Your task to perform on an android device: Open notification settings Image 0: 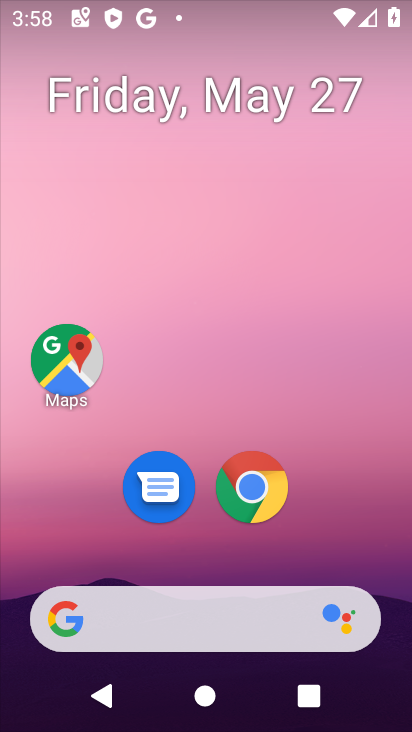
Step 0: drag from (322, 405) to (294, 33)
Your task to perform on an android device: Open notification settings Image 1: 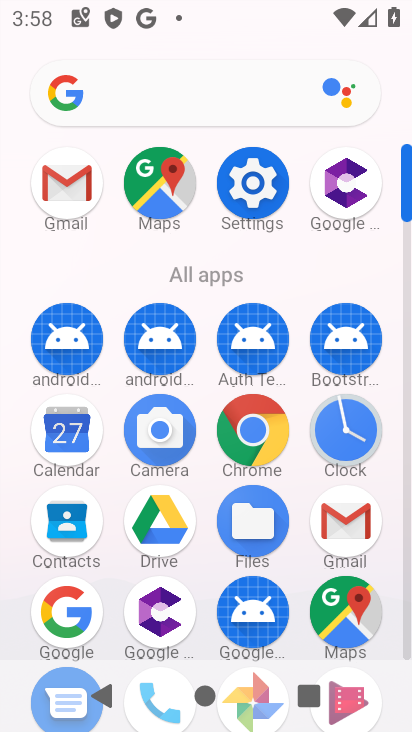
Step 1: click (245, 183)
Your task to perform on an android device: Open notification settings Image 2: 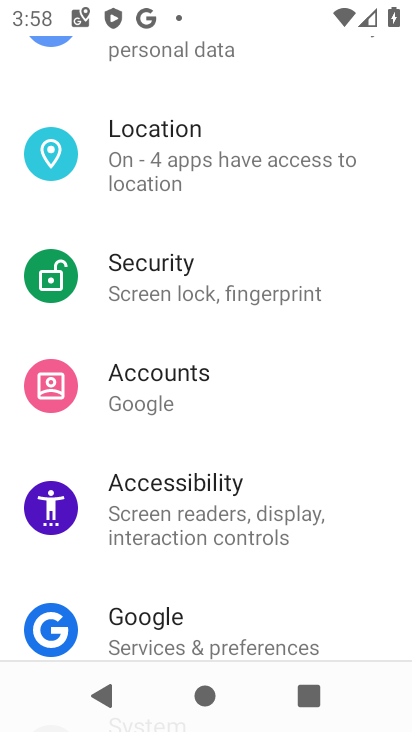
Step 2: drag from (232, 212) to (256, 577)
Your task to perform on an android device: Open notification settings Image 3: 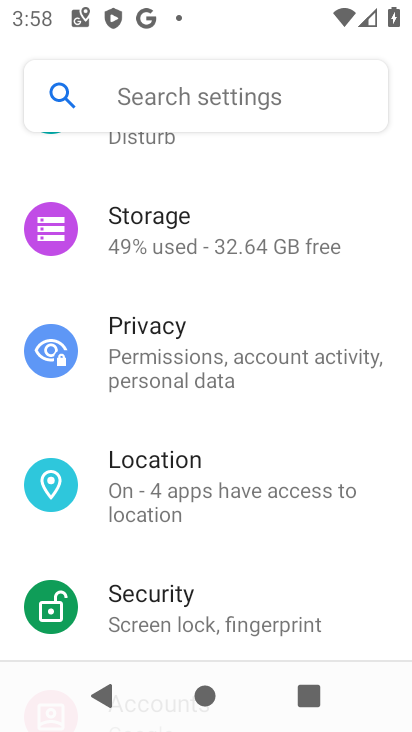
Step 3: drag from (240, 198) to (264, 529)
Your task to perform on an android device: Open notification settings Image 4: 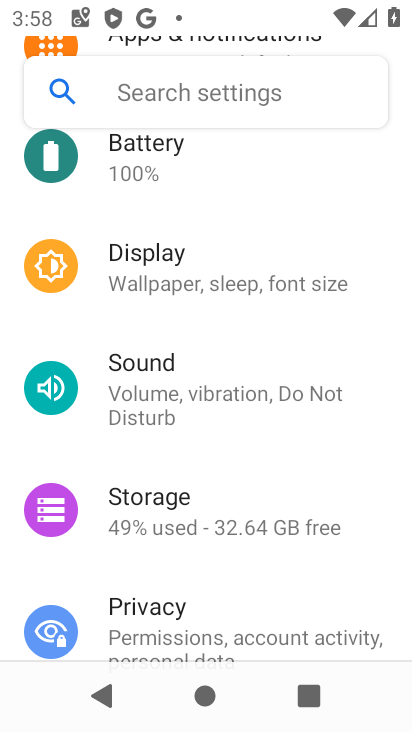
Step 4: drag from (250, 188) to (311, 568)
Your task to perform on an android device: Open notification settings Image 5: 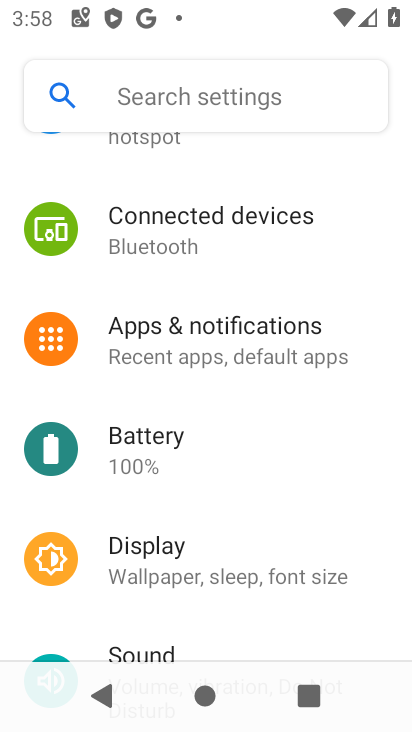
Step 5: click (180, 516)
Your task to perform on an android device: Open notification settings Image 6: 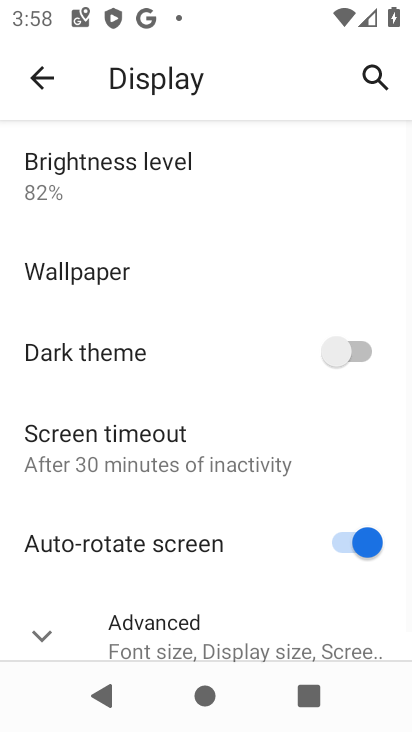
Step 6: click (69, 70)
Your task to perform on an android device: Open notification settings Image 7: 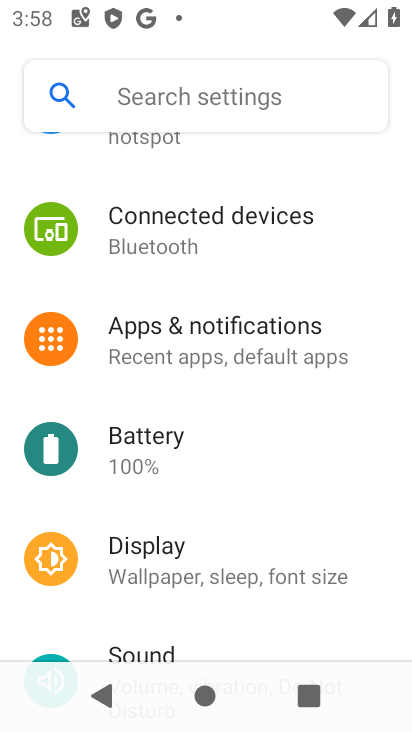
Step 7: click (211, 333)
Your task to perform on an android device: Open notification settings Image 8: 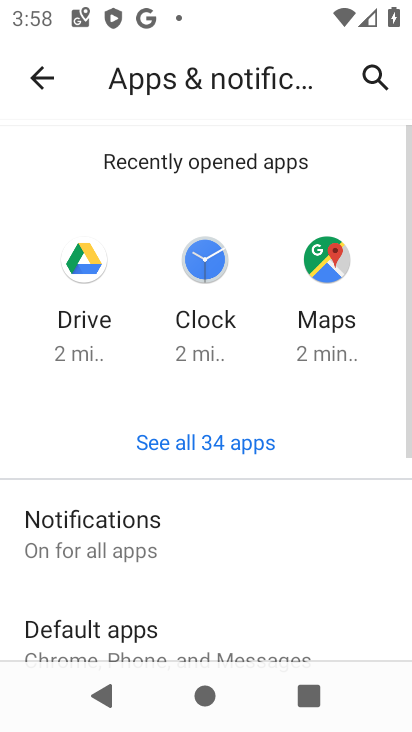
Step 8: click (115, 522)
Your task to perform on an android device: Open notification settings Image 9: 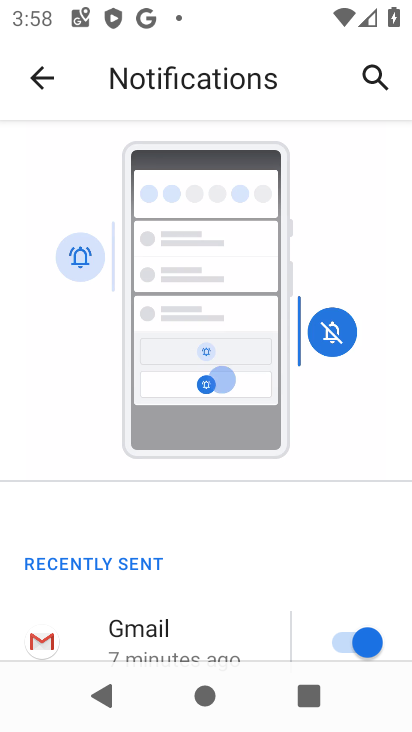
Step 9: task complete